Your task to perform on an android device: Show me productivity apps on the Play Store Image 0: 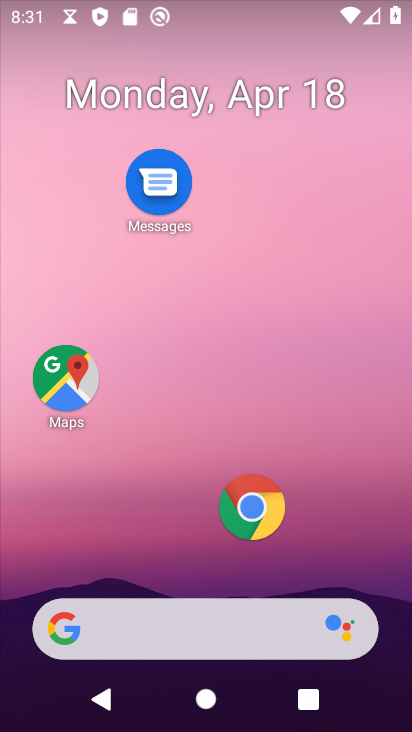
Step 0: drag from (211, 591) to (211, 274)
Your task to perform on an android device: Show me productivity apps on the Play Store Image 1: 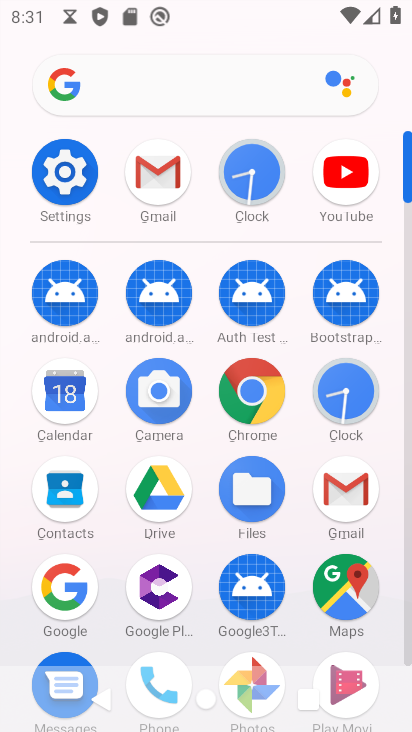
Step 1: drag from (207, 602) to (203, 317)
Your task to perform on an android device: Show me productivity apps on the Play Store Image 2: 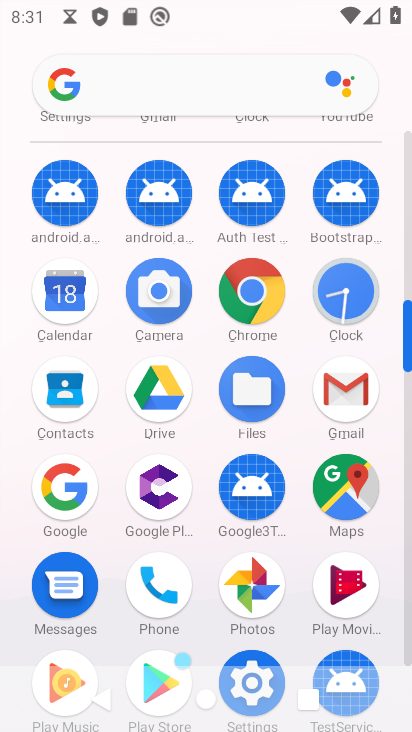
Step 2: click (172, 654)
Your task to perform on an android device: Show me productivity apps on the Play Store Image 3: 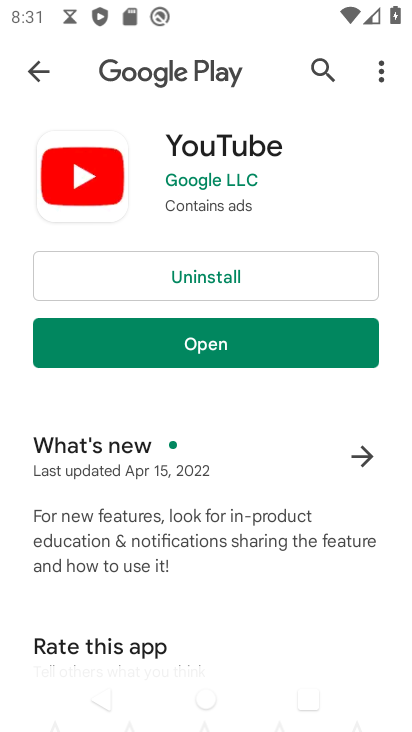
Step 3: click (35, 71)
Your task to perform on an android device: Show me productivity apps on the Play Store Image 4: 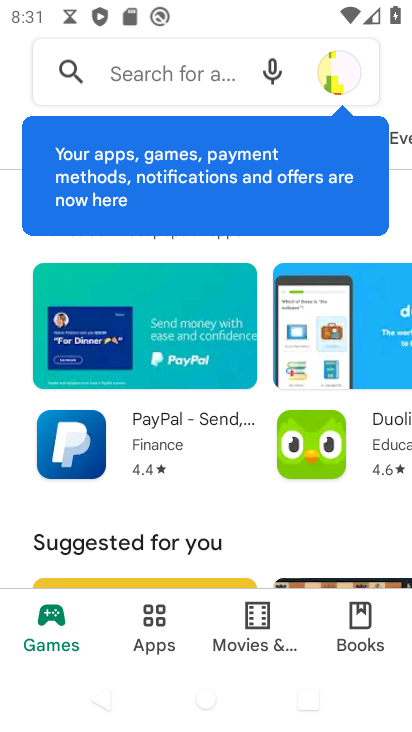
Step 4: click (151, 621)
Your task to perform on an android device: Show me productivity apps on the Play Store Image 5: 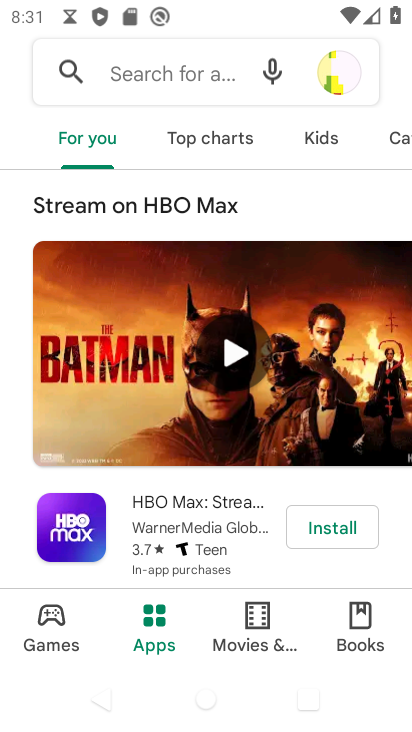
Step 5: task complete